Your task to perform on an android device: delete location history Image 0: 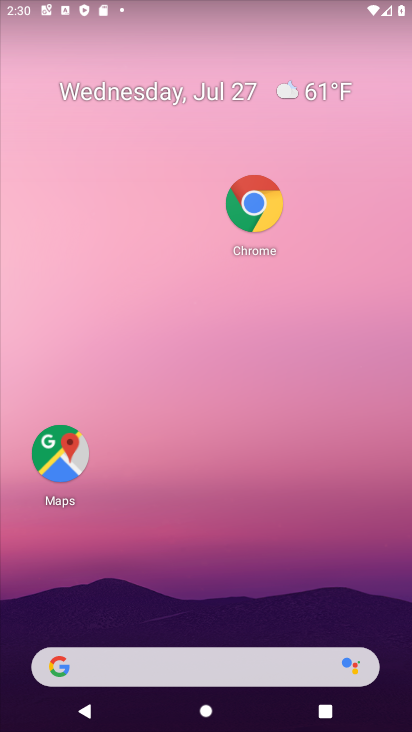
Step 0: click (60, 455)
Your task to perform on an android device: delete location history Image 1: 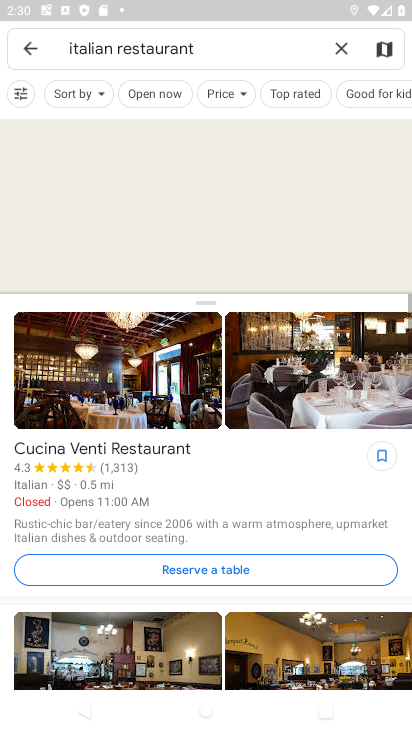
Step 1: click (31, 53)
Your task to perform on an android device: delete location history Image 2: 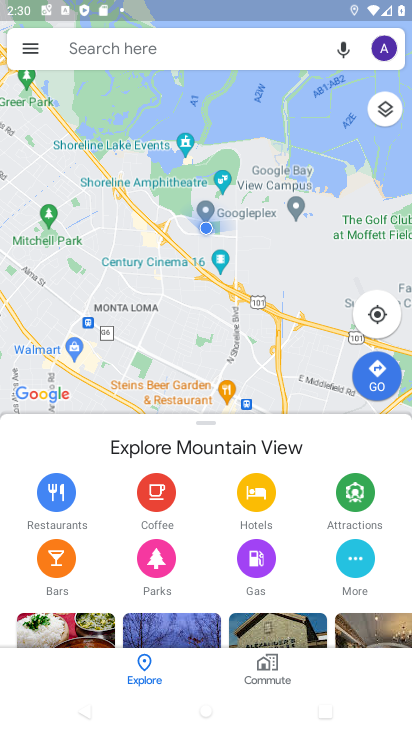
Step 2: click (27, 54)
Your task to perform on an android device: delete location history Image 3: 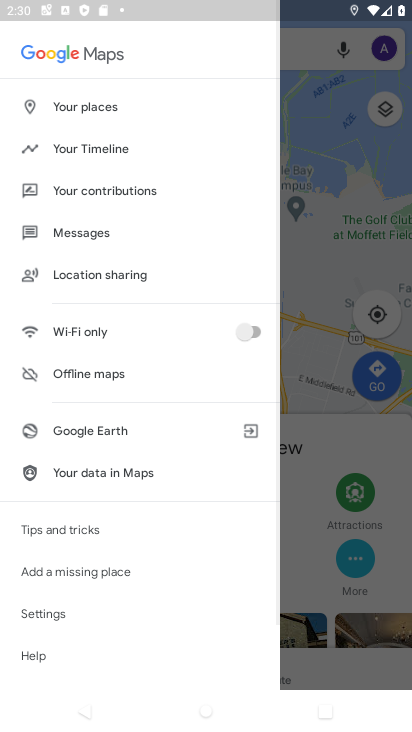
Step 3: click (109, 157)
Your task to perform on an android device: delete location history Image 4: 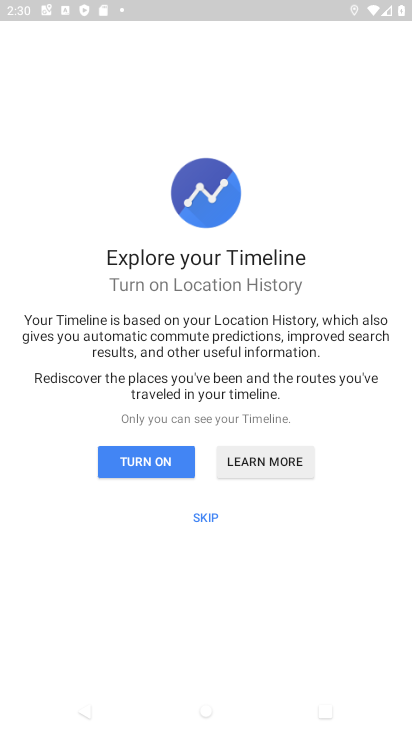
Step 4: click (199, 513)
Your task to perform on an android device: delete location history Image 5: 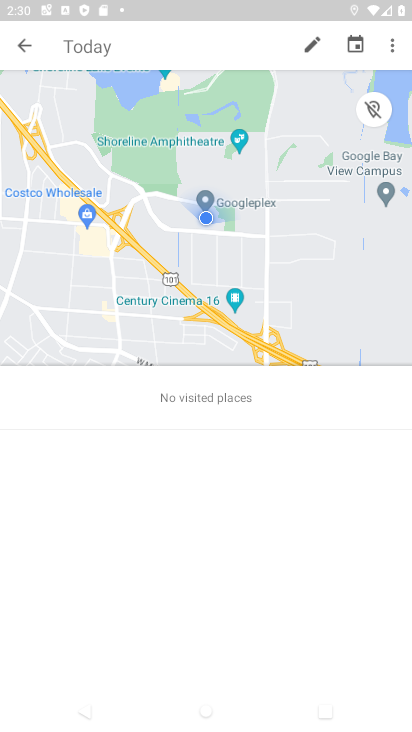
Step 5: click (387, 32)
Your task to perform on an android device: delete location history Image 6: 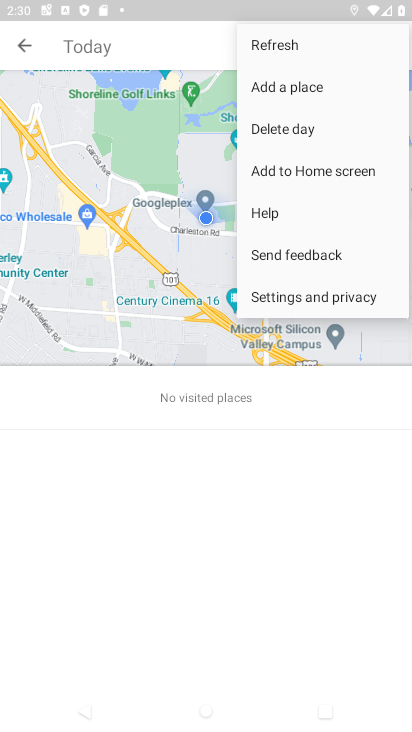
Step 6: click (320, 296)
Your task to perform on an android device: delete location history Image 7: 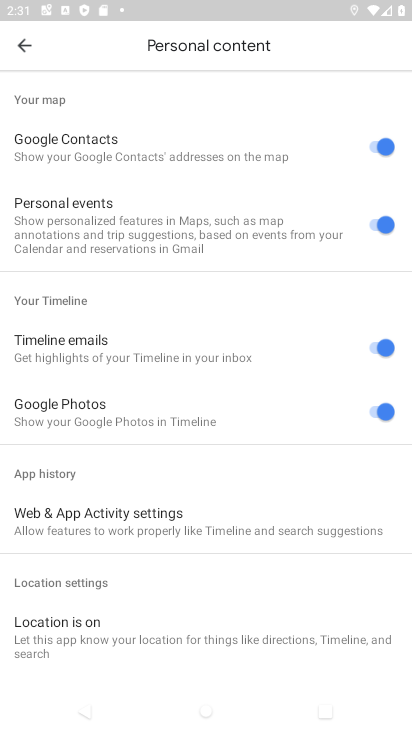
Step 7: drag from (163, 611) to (202, 255)
Your task to perform on an android device: delete location history Image 8: 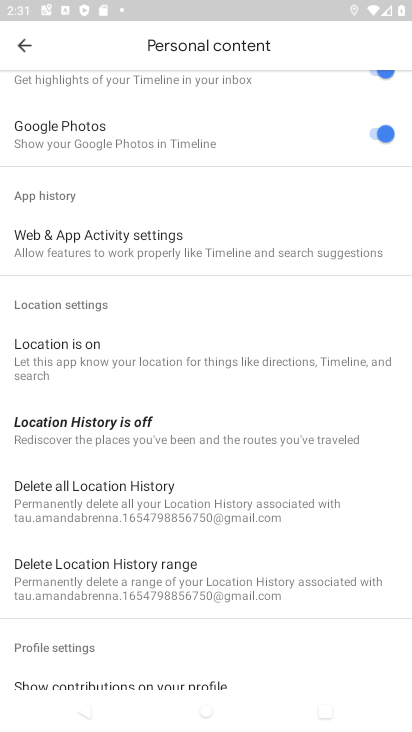
Step 8: click (166, 509)
Your task to perform on an android device: delete location history Image 9: 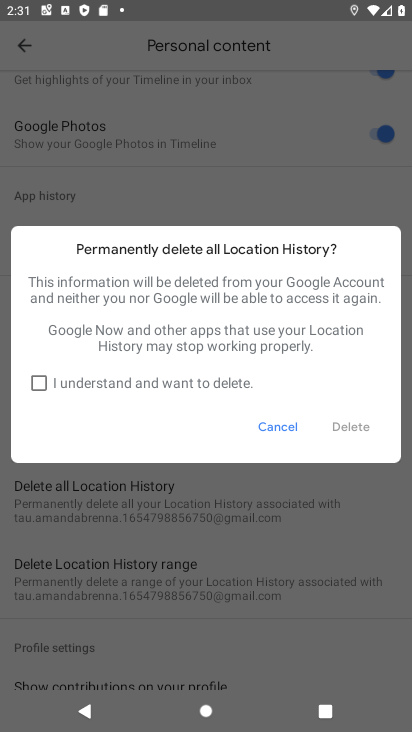
Step 9: click (204, 374)
Your task to perform on an android device: delete location history Image 10: 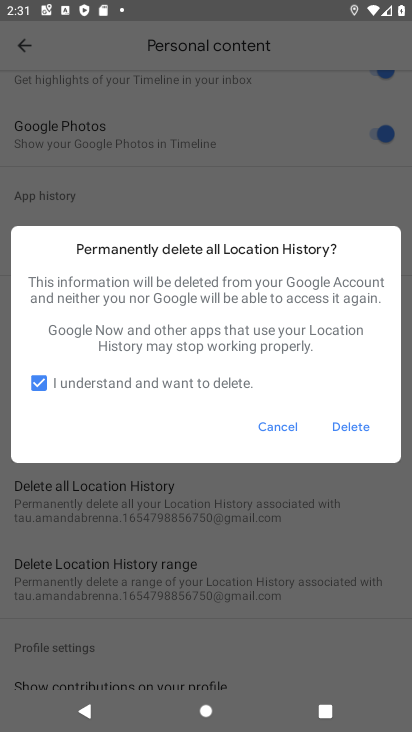
Step 10: click (344, 432)
Your task to perform on an android device: delete location history Image 11: 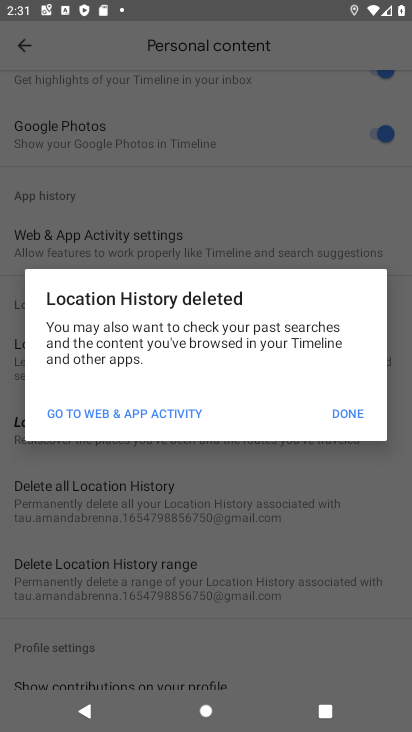
Step 11: click (353, 413)
Your task to perform on an android device: delete location history Image 12: 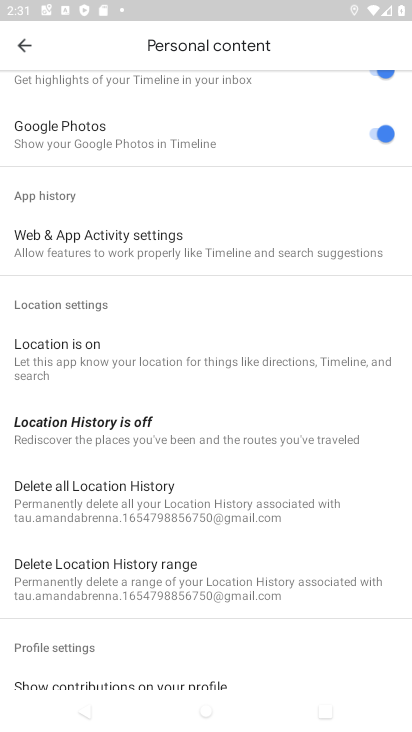
Step 12: task complete